Your task to perform on an android device: Open accessibility settings Image 0: 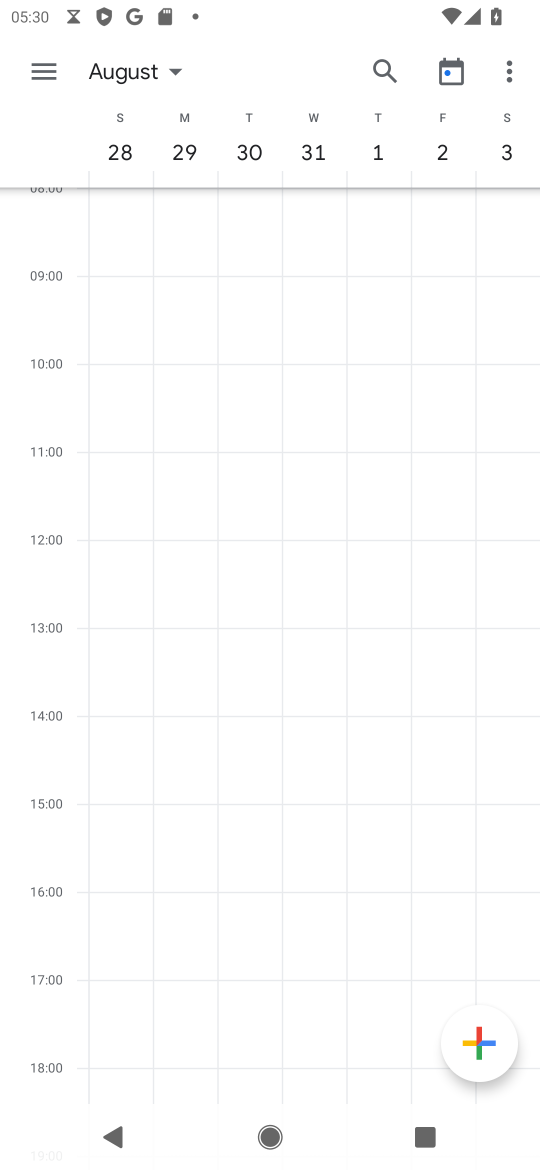
Step 0: press home button
Your task to perform on an android device: Open accessibility settings Image 1: 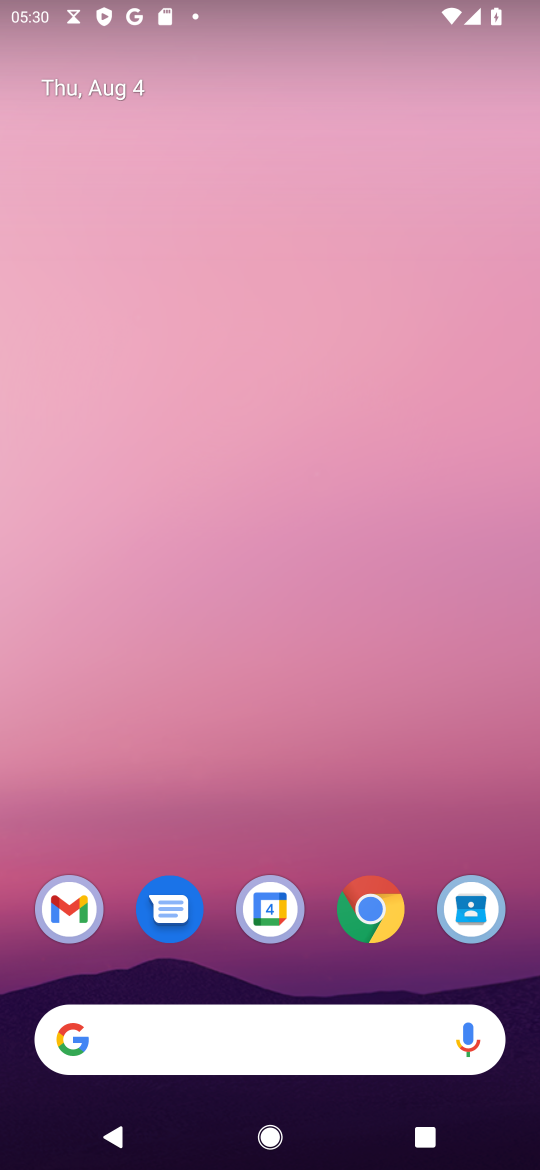
Step 1: drag from (191, 1031) to (352, 277)
Your task to perform on an android device: Open accessibility settings Image 2: 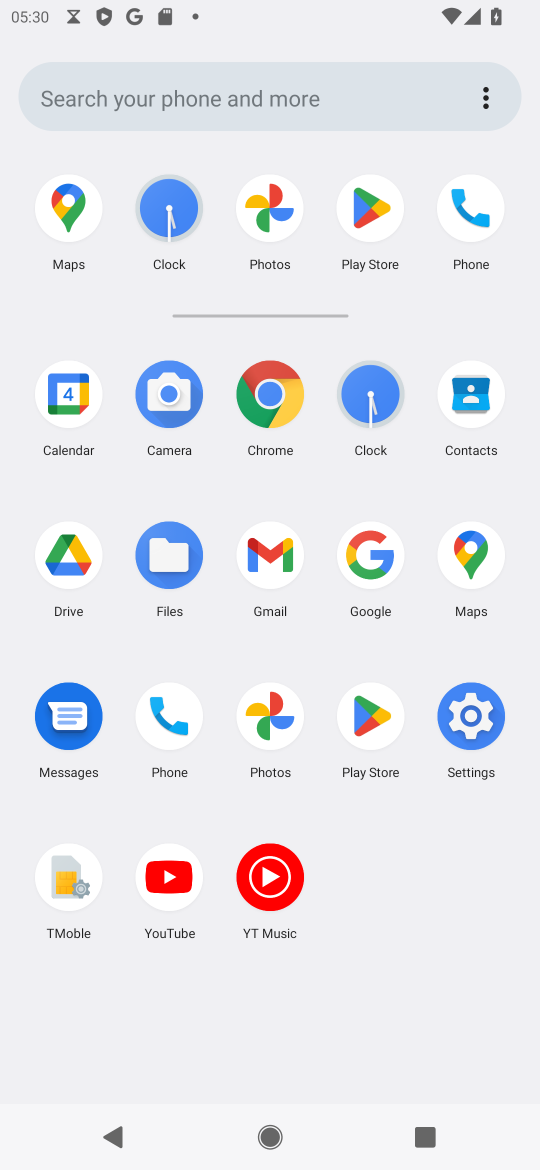
Step 2: click (470, 709)
Your task to perform on an android device: Open accessibility settings Image 3: 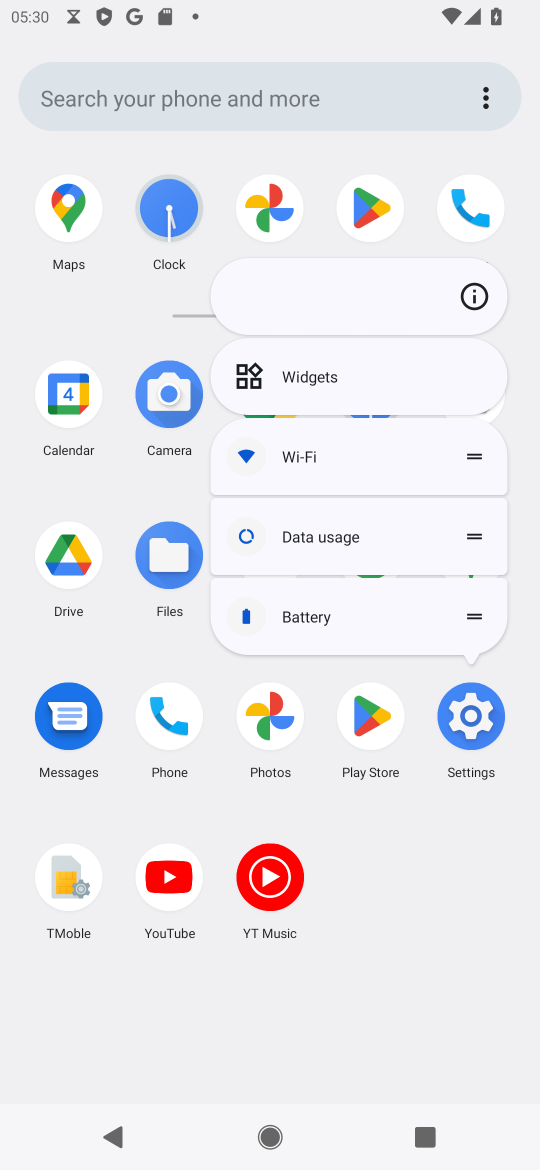
Step 3: click (466, 726)
Your task to perform on an android device: Open accessibility settings Image 4: 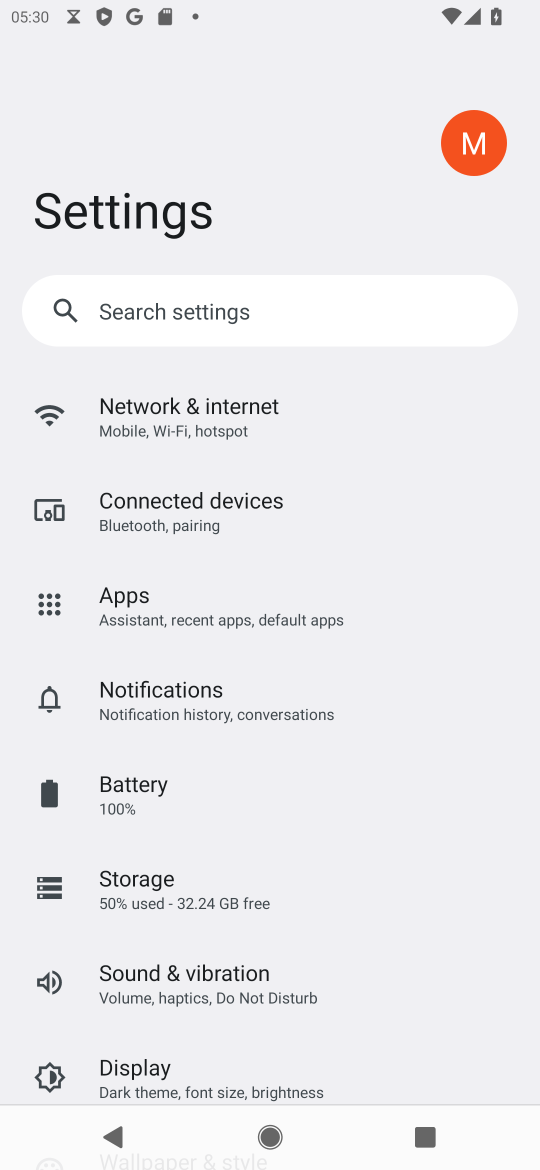
Step 4: drag from (386, 930) to (501, 226)
Your task to perform on an android device: Open accessibility settings Image 5: 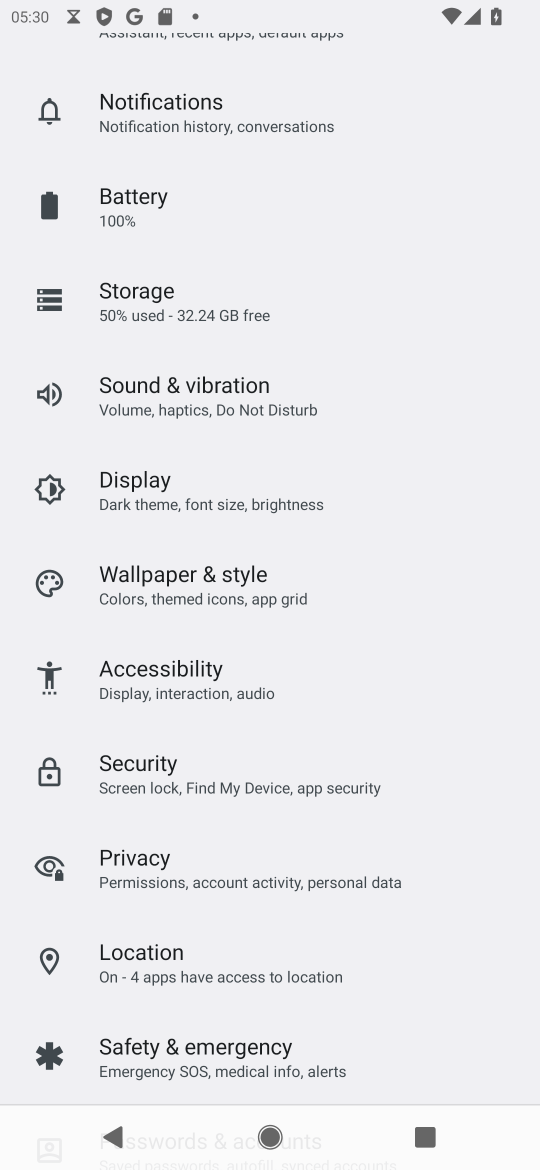
Step 5: click (199, 662)
Your task to perform on an android device: Open accessibility settings Image 6: 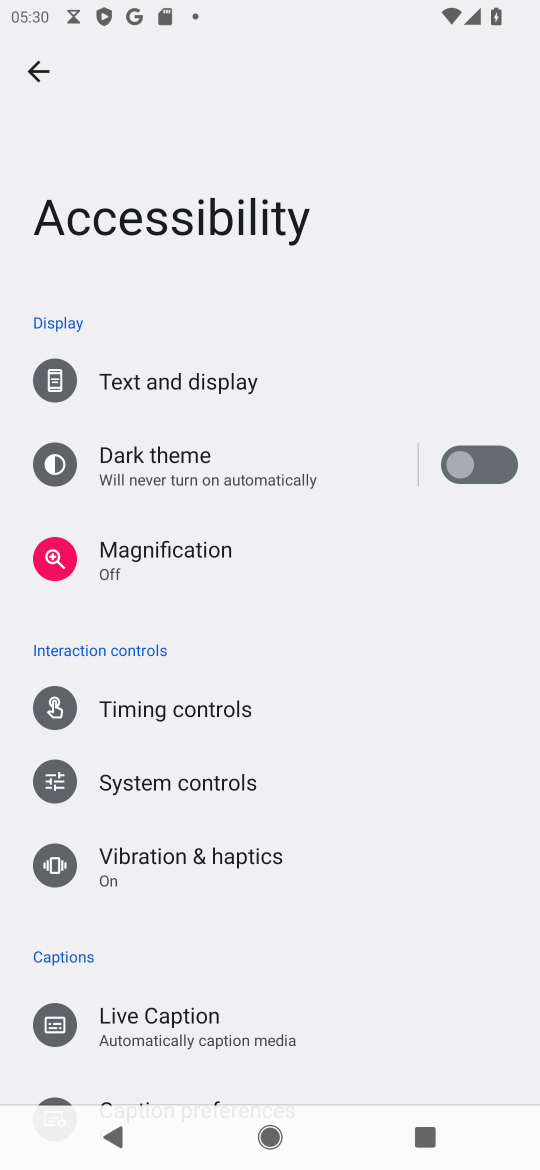
Step 6: task complete